Your task to perform on an android device: turn off translation in the chrome app Image 0: 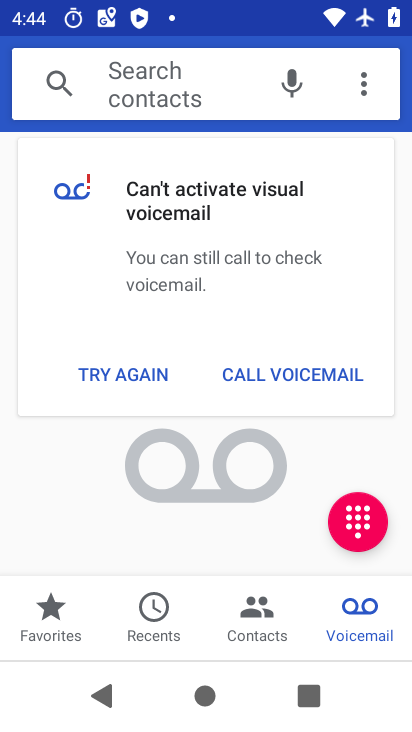
Step 0: press home button
Your task to perform on an android device: turn off translation in the chrome app Image 1: 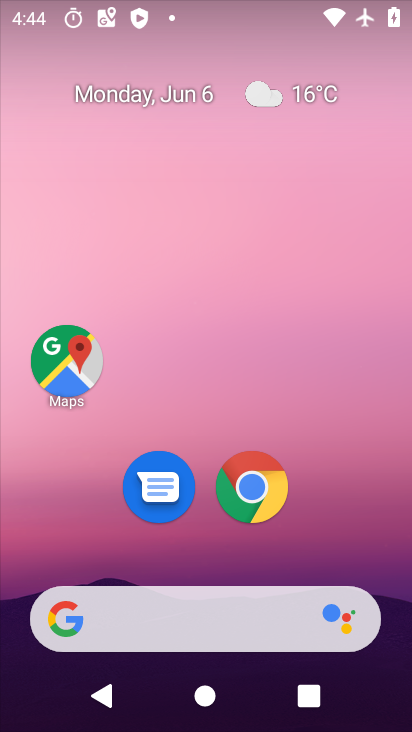
Step 1: click (251, 488)
Your task to perform on an android device: turn off translation in the chrome app Image 2: 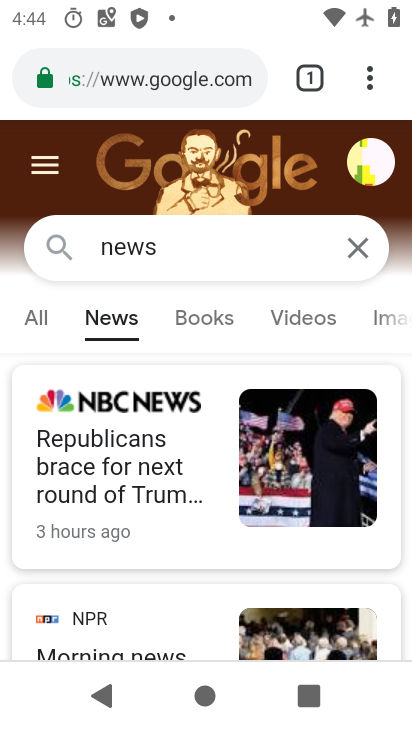
Step 2: drag from (366, 71) to (153, 564)
Your task to perform on an android device: turn off translation in the chrome app Image 3: 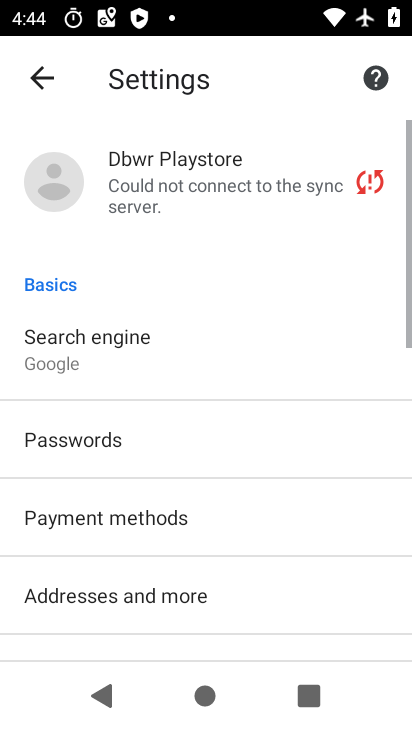
Step 3: drag from (152, 553) to (205, 24)
Your task to perform on an android device: turn off translation in the chrome app Image 4: 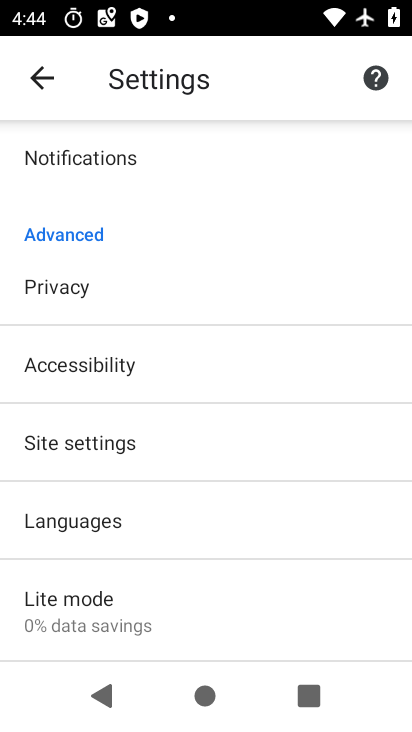
Step 4: click (126, 536)
Your task to perform on an android device: turn off translation in the chrome app Image 5: 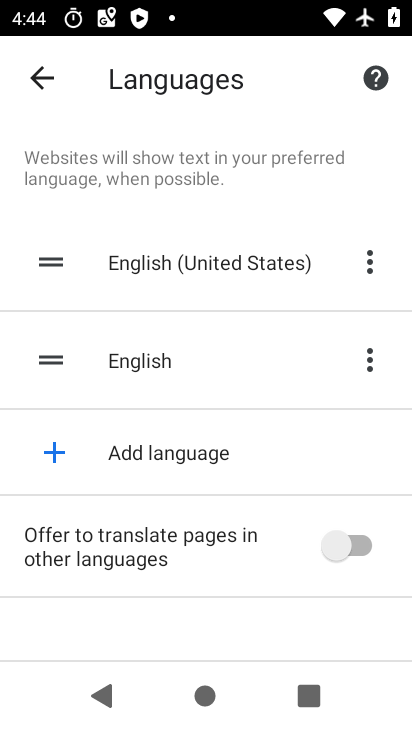
Step 5: task complete